Your task to perform on an android device: Go to wifi settings Image 0: 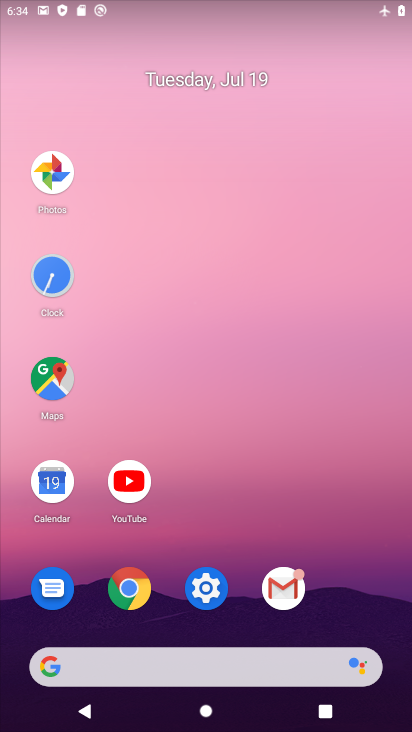
Step 0: click (207, 591)
Your task to perform on an android device: Go to wifi settings Image 1: 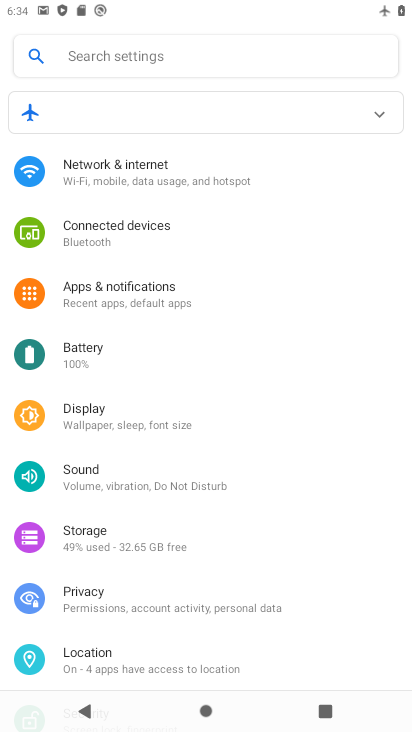
Step 1: click (92, 162)
Your task to perform on an android device: Go to wifi settings Image 2: 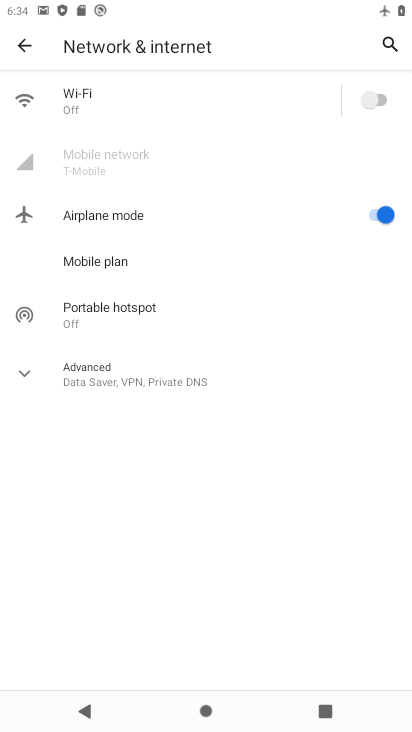
Step 2: task complete